Your task to perform on an android device: snooze an email in the gmail app Image 0: 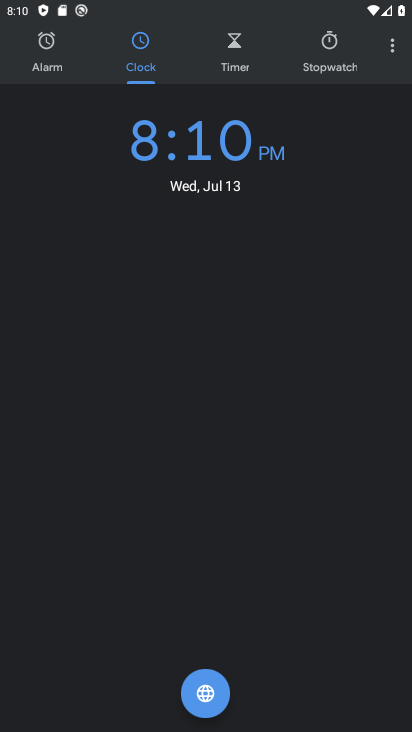
Step 0: press home button
Your task to perform on an android device: snooze an email in the gmail app Image 1: 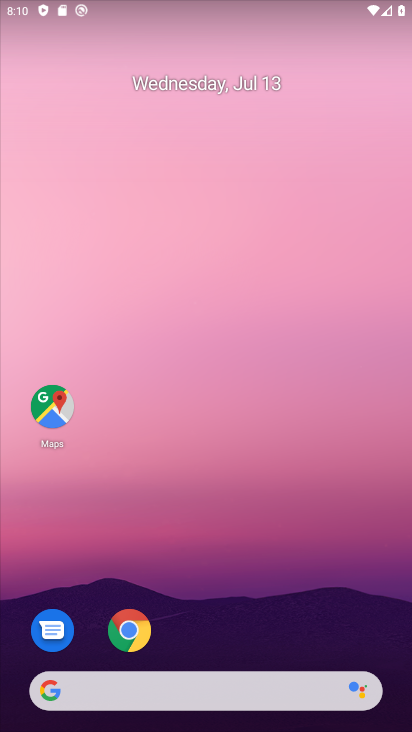
Step 1: drag from (224, 690) to (312, 124)
Your task to perform on an android device: snooze an email in the gmail app Image 2: 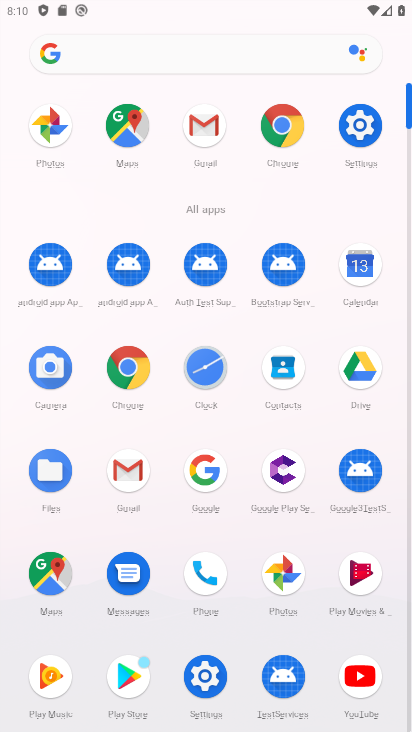
Step 2: click (204, 123)
Your task to perform on an android device: snooze an email in the gmail app Image 3: 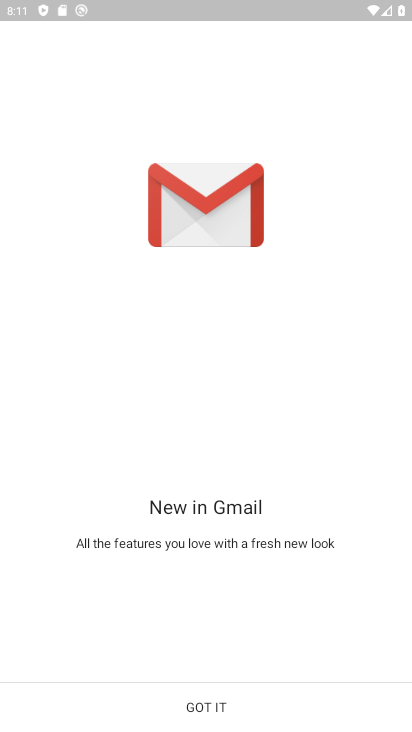
Step 3: click (208, 709)
Your task to perform on an android device: snooze an email in the gmail app Image 4: 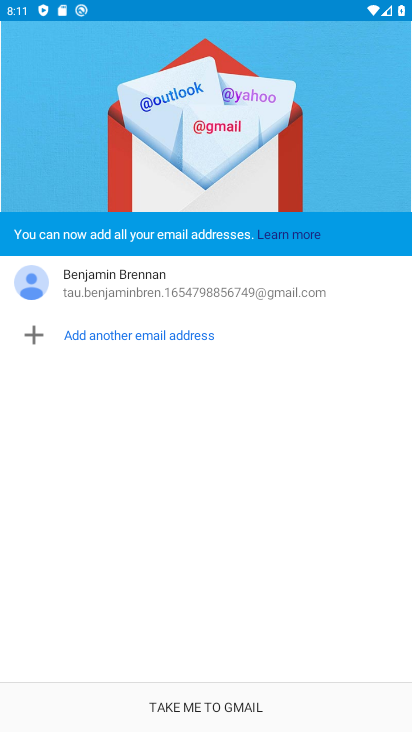
Step 4: click (208, 709)
Your task to perform on an android device: snooze an email in the gmail app Image 5: 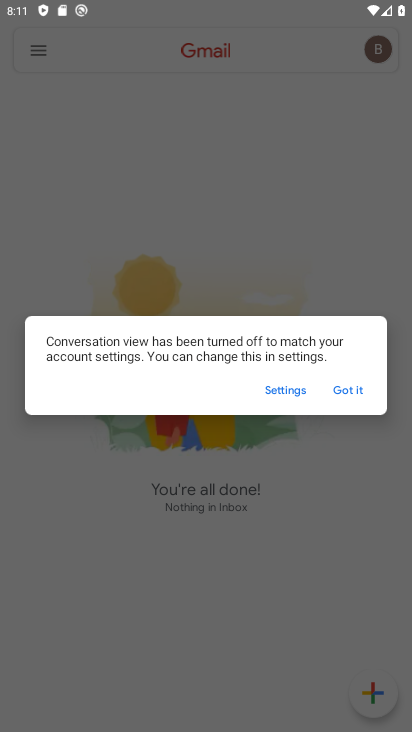
Step 5: click (352, 395)
Your task to perform on an android device: snooze an email in the gmail app Image 6: 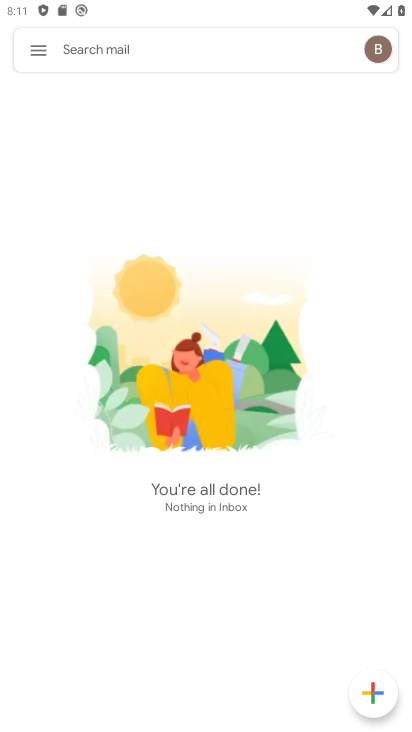
Step 6: click (36, 52)
Your task to perform on an android device: snooze an email in the gmail app Image 7: 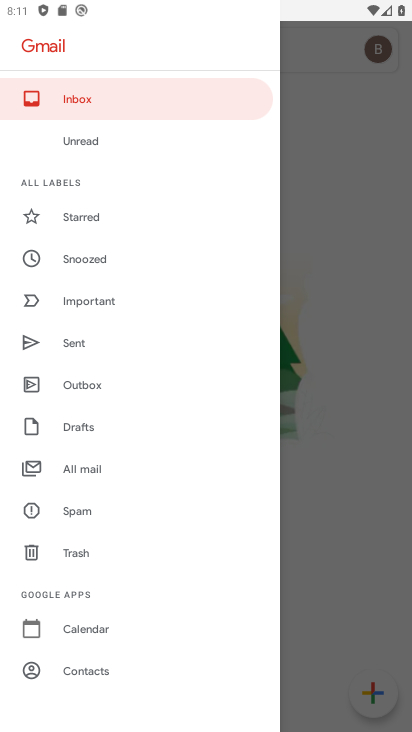
Step 7: click (81, 465)
Your task to perform on an android device: snooze an email in the gmail app Image 8: 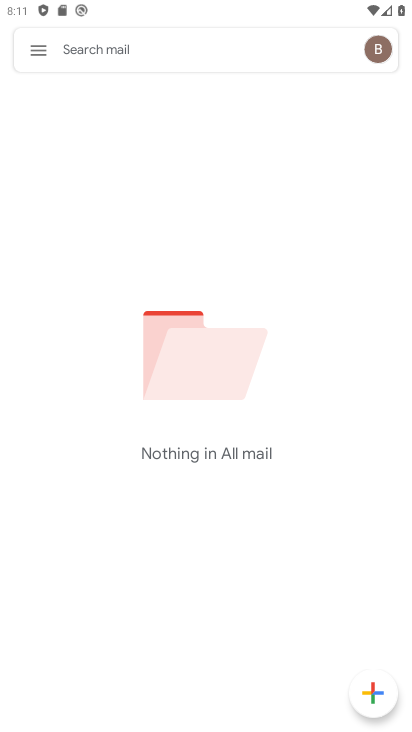
Step 8: click (41, 55)
Your task to perform on an android device: snooze an email in the gmail app Image 9: 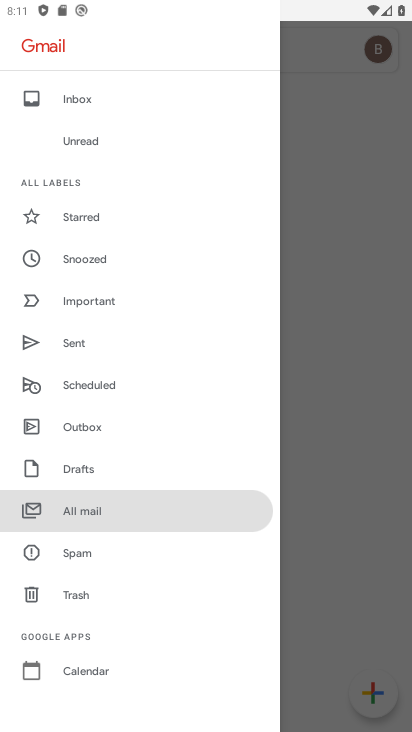
Step 9: click (89, 262)
Your task to perform on an android device: snooze an email in the gmail app Image 10: 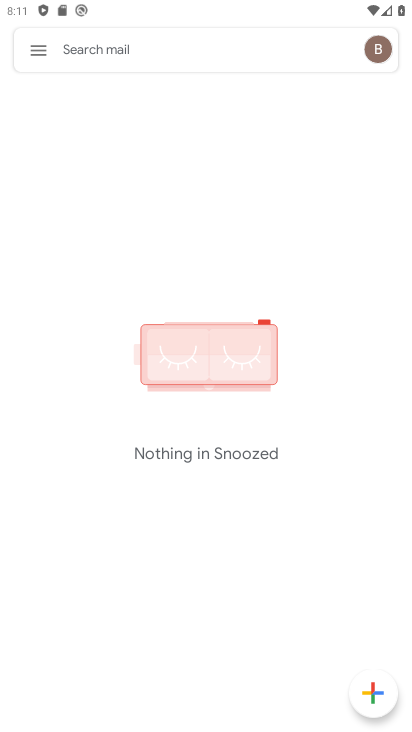
Step 10: click (42, 50)
Your task to perform on an android device: snooze an email in the gmail app Image 11: 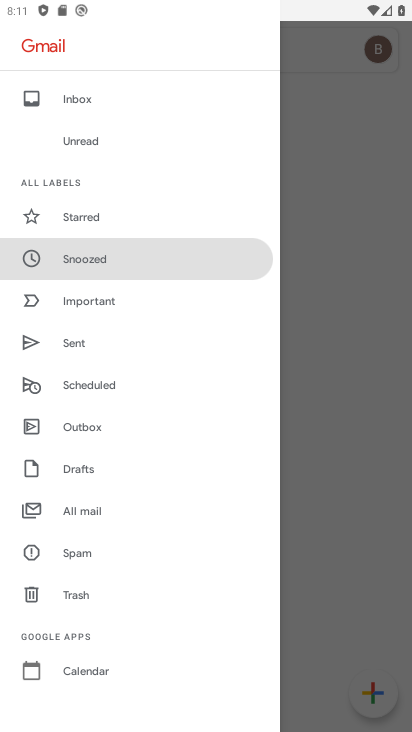
Step 11: click (80, 298)
Your task to perform on an android device: snooze an email in the gmail app Image 12: 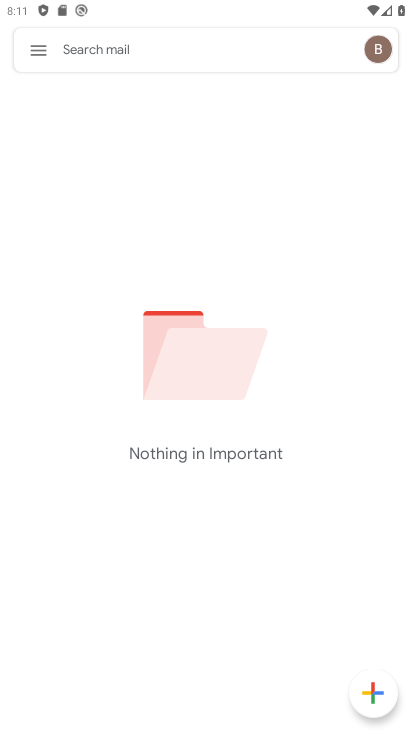
Step 12: click (40, 54)
Your task to perform on an android device: snooze an email in the gmail app Image 13: 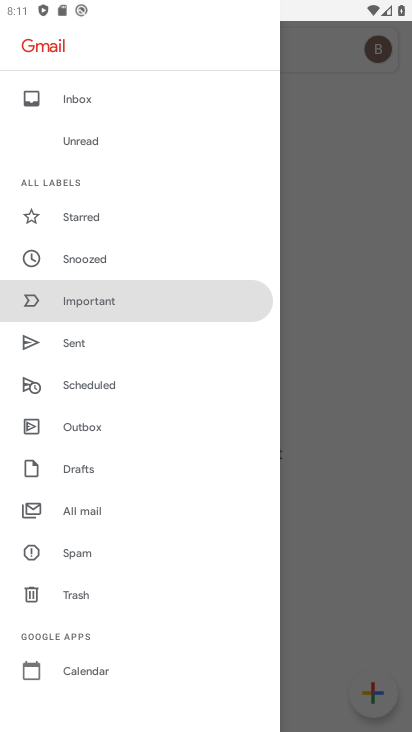
Step 13: click (69, 348)
Your task to perform on an android device: snooze an email in the gmail app Image 14: 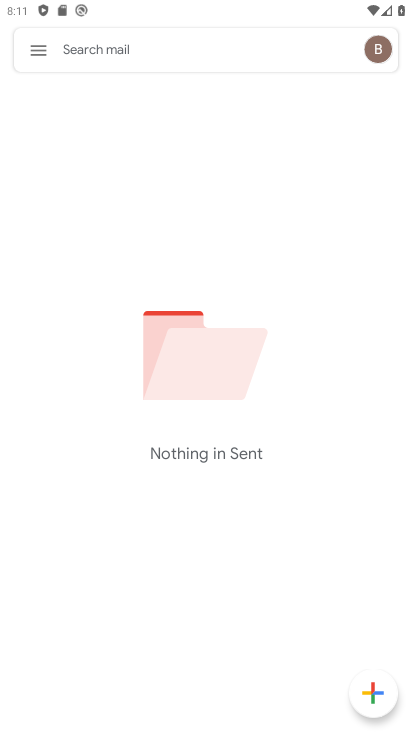
Step 14: click (39, 51)
Your task to perform on an android device: snooze an email in the gmail app Image 15: 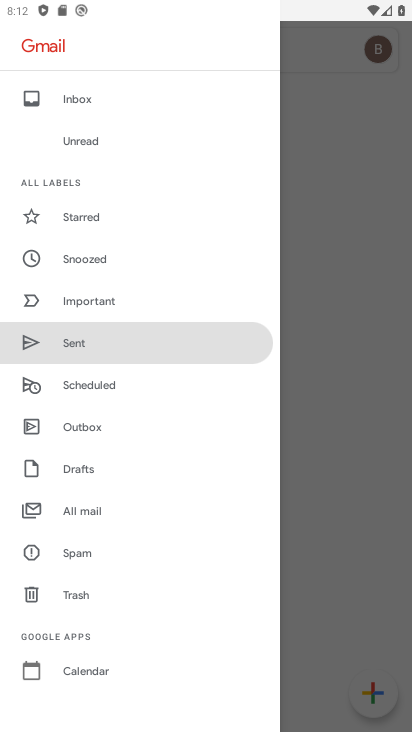
Step 15: click (88, 385)
Your task to perform on an android device: snooze an email in the gmail app Image 16: 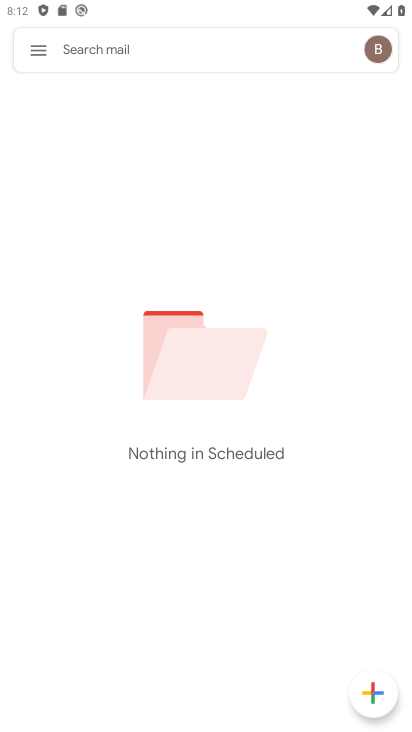
Step 16: click (32, 52)
Your task to perform on an android device: snooze an email in the gmail app Image 17: 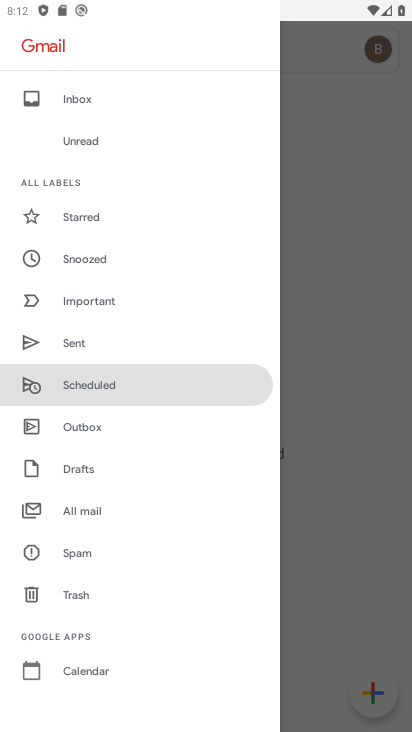
Step 17: click (60, 432)
Your task to perform on an android device: snooze an email in the gmail app Image 18: 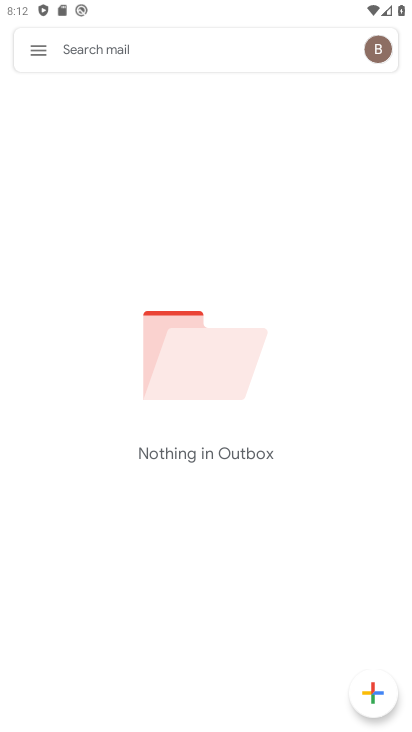
Step 18: click (34, 49)
Your task to perform on an android device: snooze an email in the gmail app Image 19: 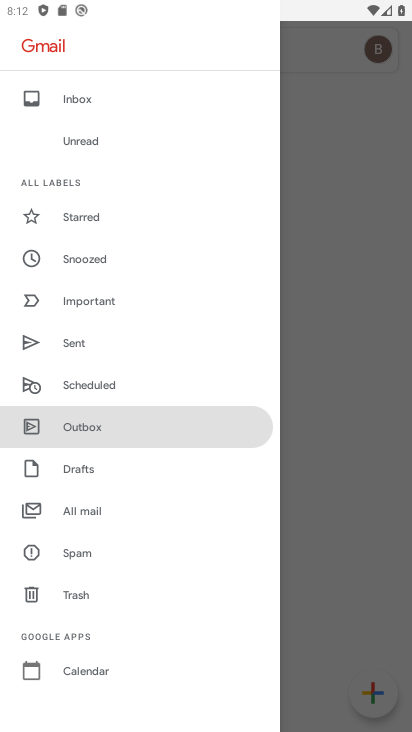
Step 19: click (80, 471)
Your task to perform on an android device: snooze an email in the gmail app Image 20: 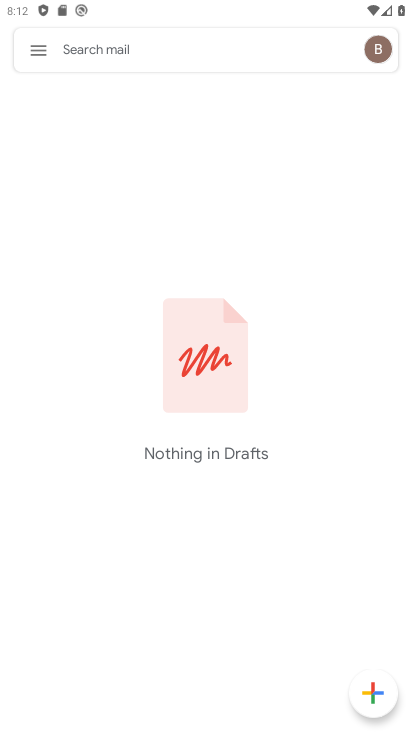
Step 20: click (43, 57)
Your task to perform on an android device: snooze an email in the gmail app Image 21: 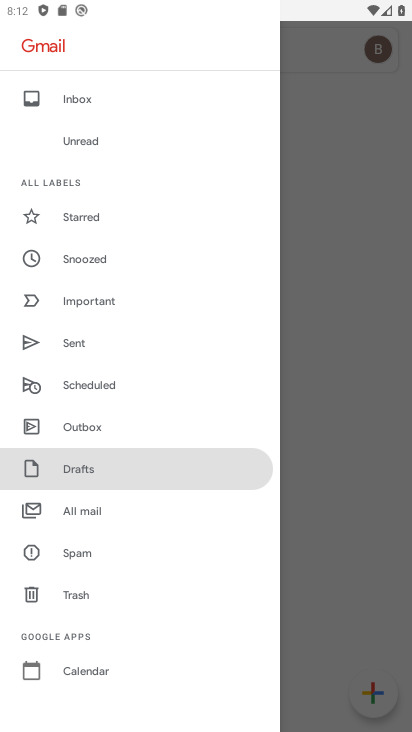
Step 21: click (77, 502)
Your task to perform on an android device: snooze an email in the gmail app Image 22: 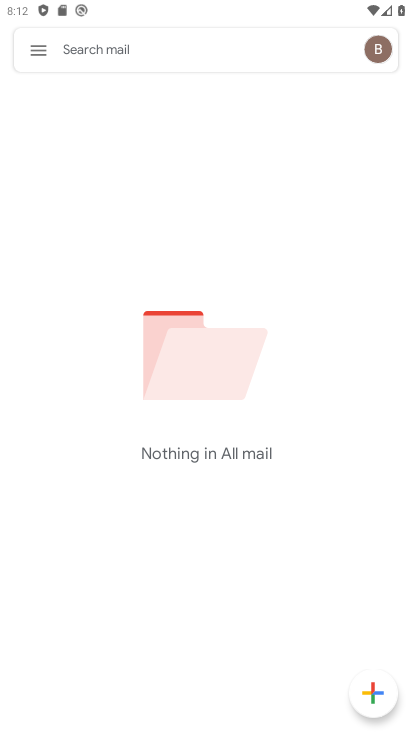
Step 22: task complete